Your task to perform on an android device: Open Google Maps and go to "Timeline" Image 0: 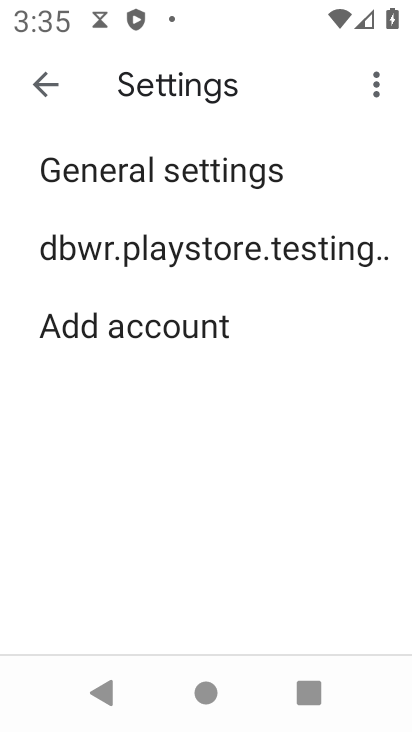
Step 0: press back button
Your task to perform on an android device: Open Google Maps and go to "Timeline" Image 1: 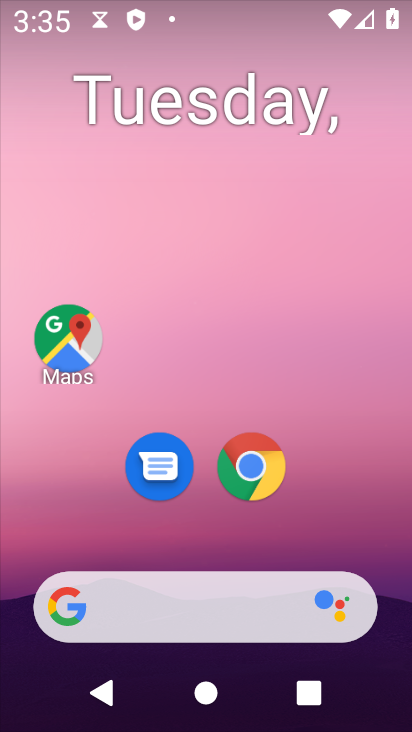
Step 1: drag from (330, 488) to (215, 25)
Your task to perform on an android device: Open Google Maps and go to "Timeline" Image 2: 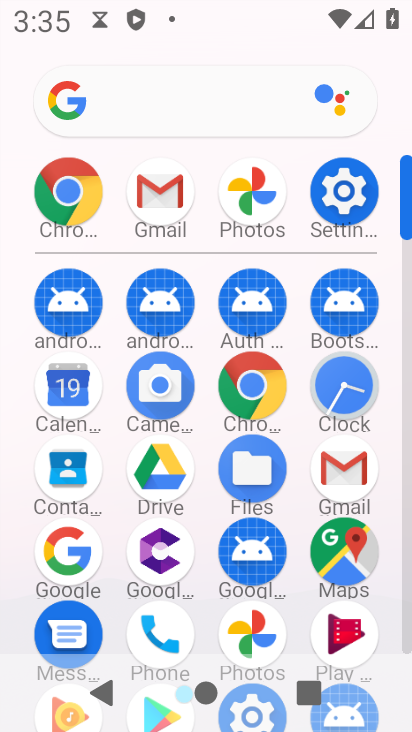
Step 2: drag from (13, 486) to (5, 325)
Your task to perform on an android device: Open Google Maps and go to "Timeline" Image 3: 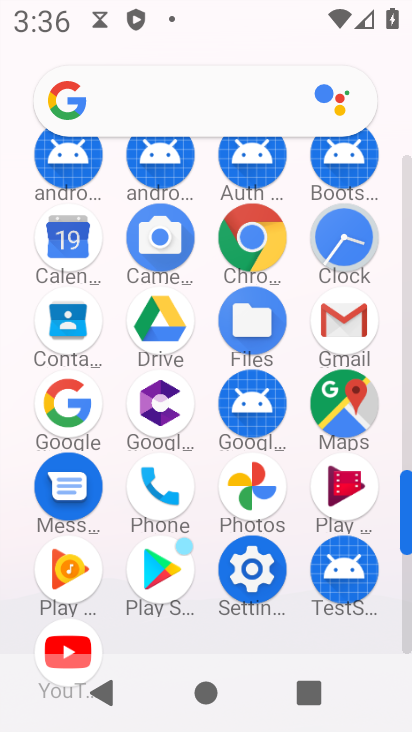
Step 3: click (339, 408)
Your task to perform on an android device: Open Google Maps and go to "Timeline" Image 4: 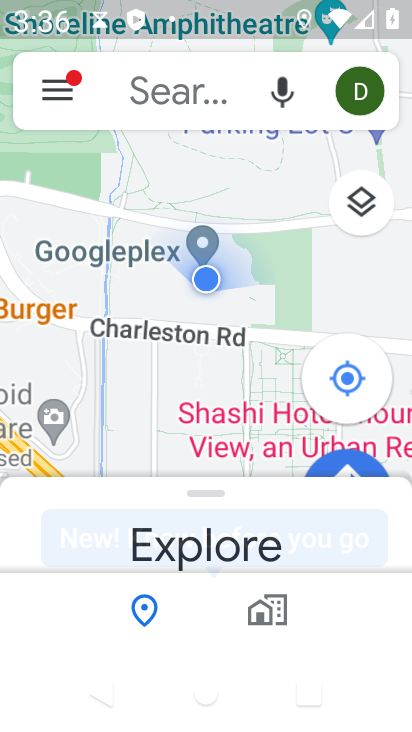
Step 4: click (64, 95)
Your task to perform on an android device: Open Google Maps and go to "Timeline" Image 5: 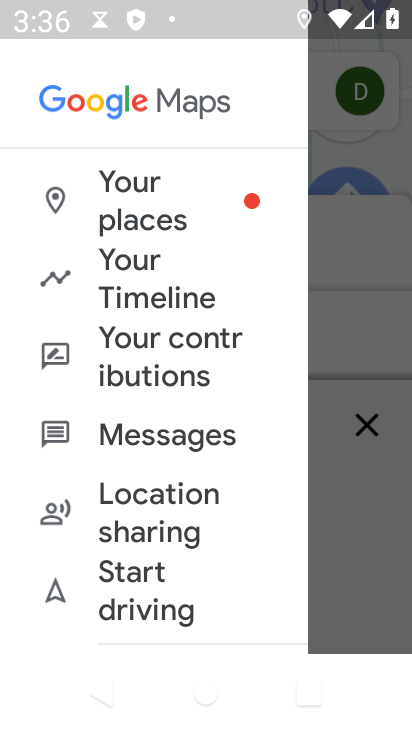
Step 5: click (163, 279)
Your task to perform on an android device: Open Google Maps and go to "Timeline" Image 6: 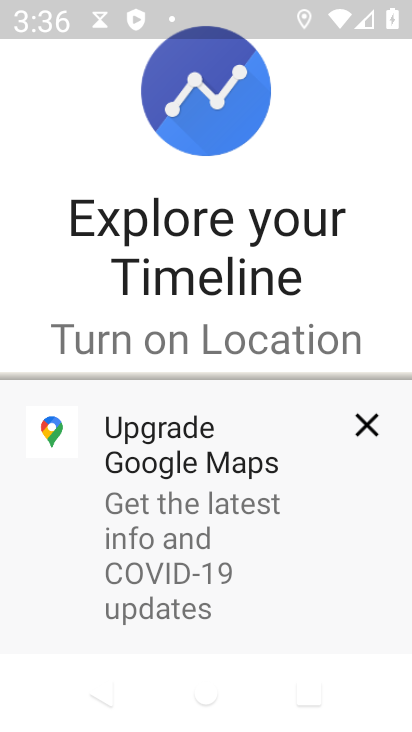
Step 6: click (367, 422)
Your task to perform on an android device: Open Google Maps and go to "Timeline" Image 7: 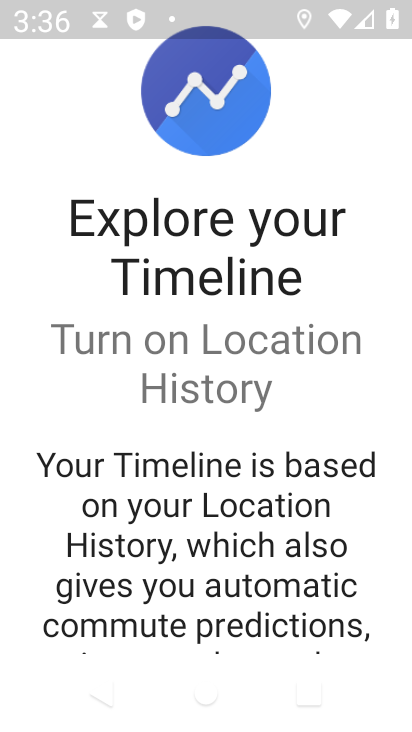
Step 7: drag from (246, 588) to (253, 259)
Your task to perform on an android device: Open Google Maps and go to "Timeline" Image 8: 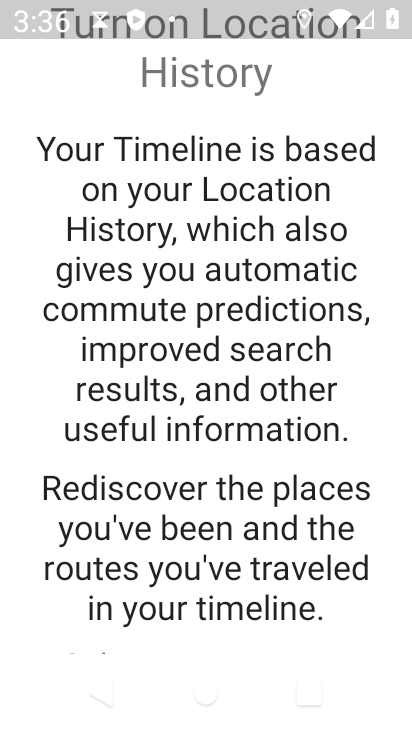
Step 8: drag from (245, 523) to (251, 137)
Your task to perform on an android device: Open Google Maps and go to "Timeline" Image 9: 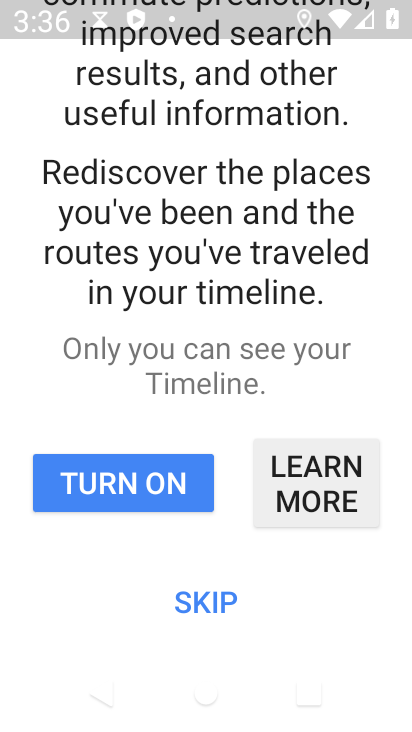
Step 9: click (135, 483)
Your task to perform on an android device: Open Google Maps and go to "Timeline" Image 10: 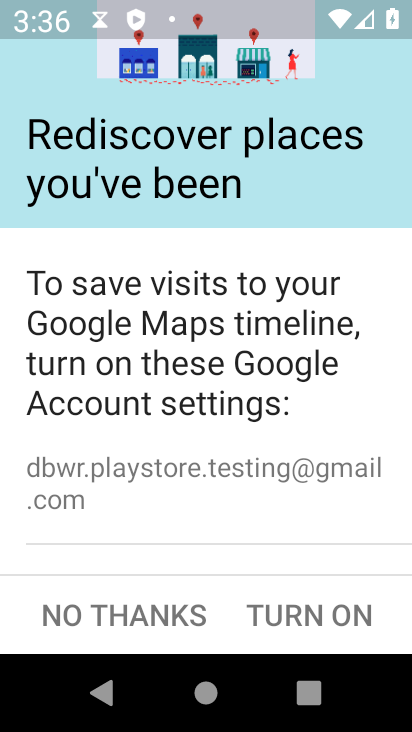
Step 10: click (313, 616)
Your task to perform on an android device: Open Google Maps and go to "Timeline" Image 11: 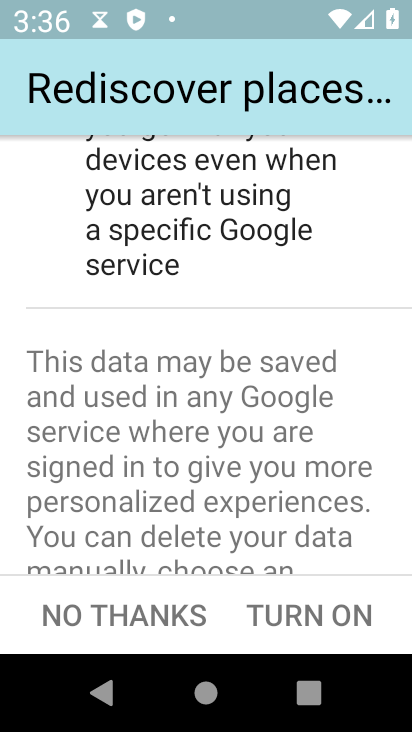
Step 11: click (313, 616)
Your task to perform on an android device: Open Google Maps and go to "Timeline" Image 12: 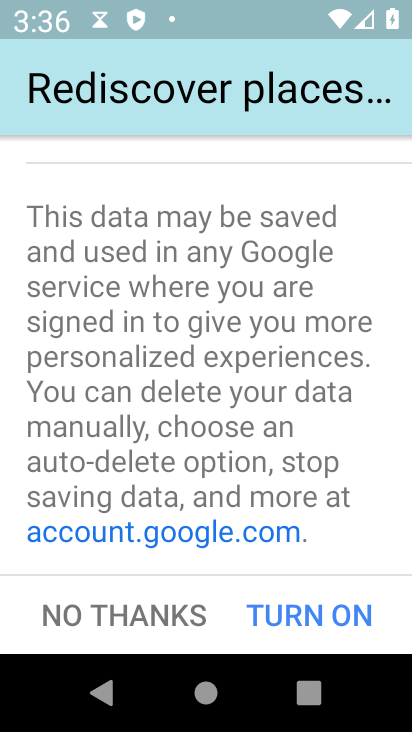
Step 12: click (313, 616)
Your task to perform on an android device: Open Google Maps and go to "Timeline" Image 13: 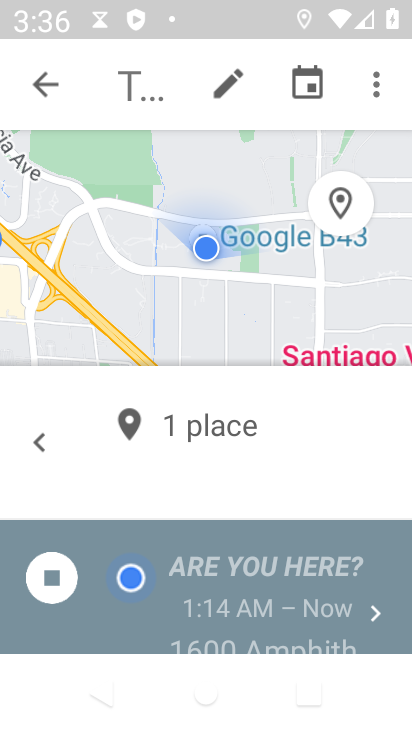
Step 13: task complete